Your task to perform on an android device: allow cookies in the chrome app Image 0: 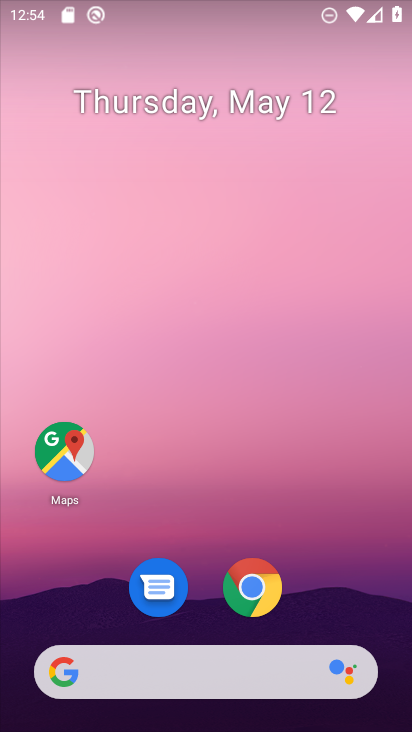
Step 0: click (252, 587)
Your task to perform on an android device: allow cookies in the chrome app Image 1: 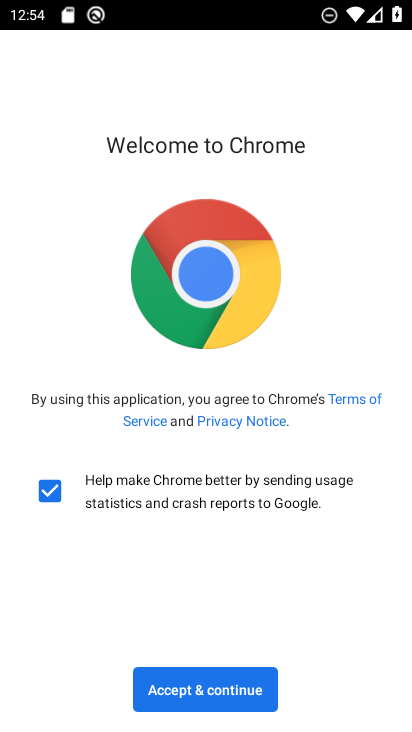
Step 1: click (223, 688)
Your task to perform on an android device: allow cookies in the chrome app Image 2: 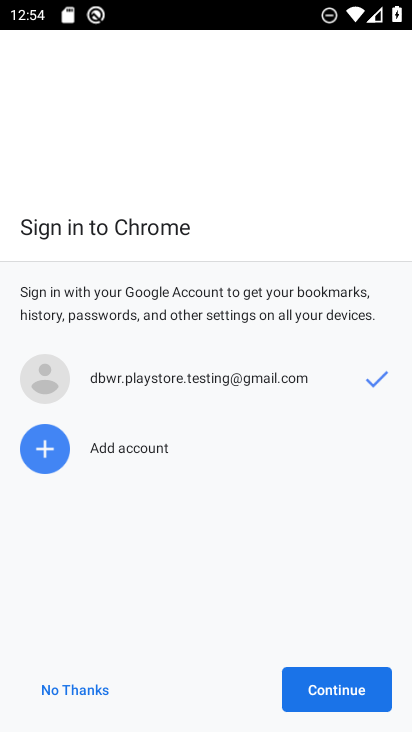
Step 2: click (334, 688)
Your task to perform on an android device: allow cookies in the chrome app Image 3: 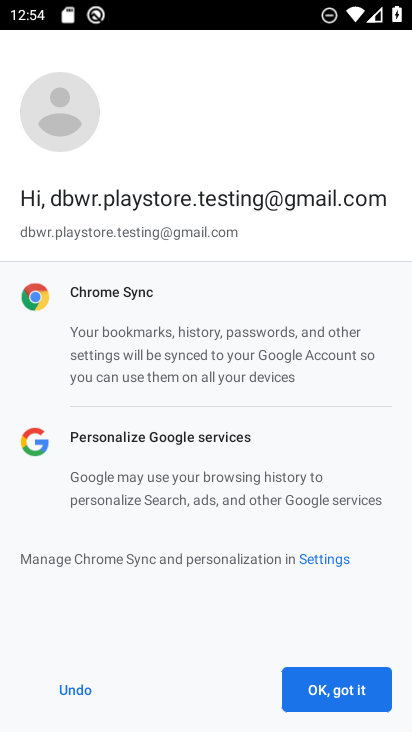
Step 3: click (334, 688)
Your task to perform on an android device: allow cookies in the chrome app Image 4: 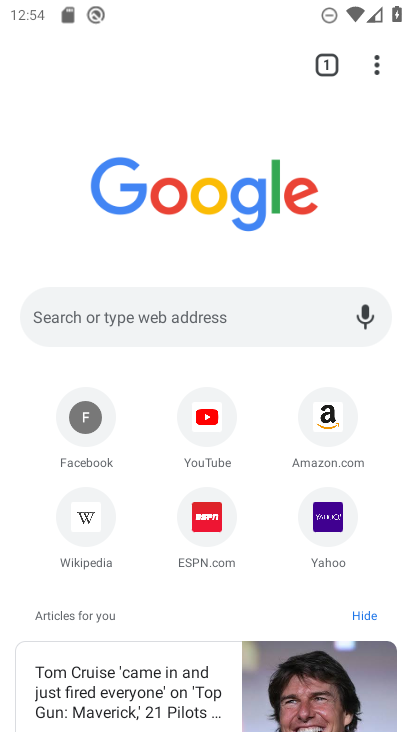
Step 4: click (378, 68)
Your task to perform on an android device: allow cookies in the chrome app Image 5: 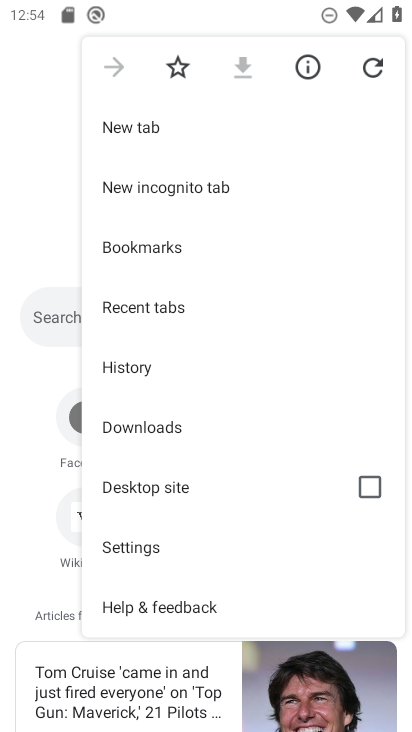
Step 5: click (150, 548)
Your task to perform on an android device: allow cookies in the chrome app Image 6: 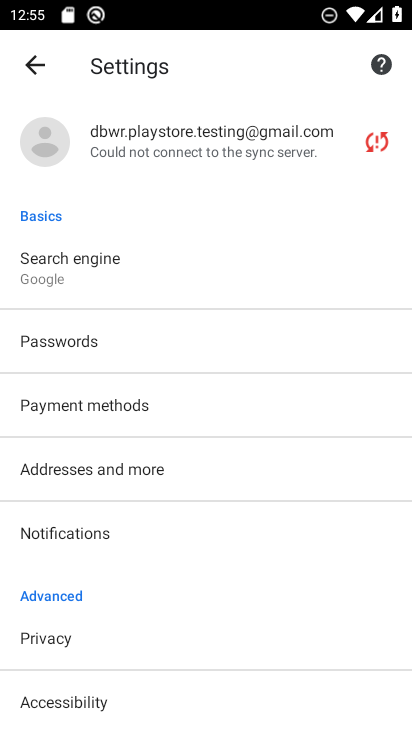
Step 6: drag from (103, 638) to (218, 459)
Your task to perform on an android device: allow cookies in the chrome app Image 7: 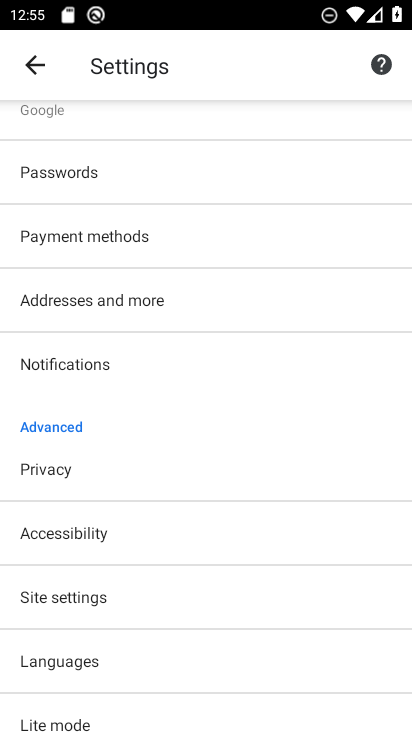
Step 7: click (83, 595)
Your task to perform on an android device: allow cookies in the chrome app Image 8: 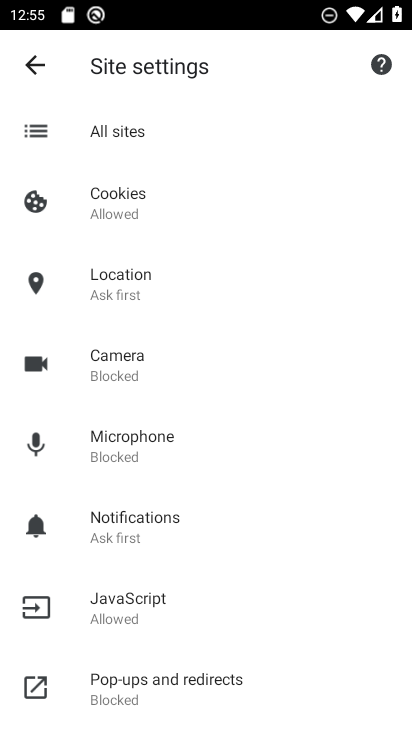
Step 8: click (123, 191)
Your task to perform on an android device: allow cookies in the chrome app Image 9: 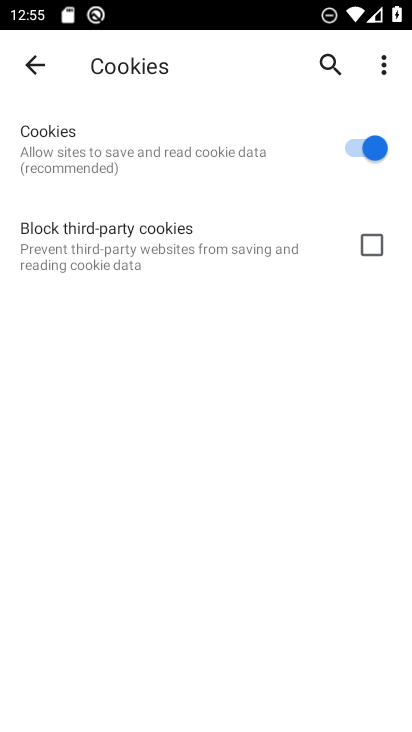
Step 9: click (372, 244)
Your task to perform on an android device: allow cookies in the chrome app Image 10: 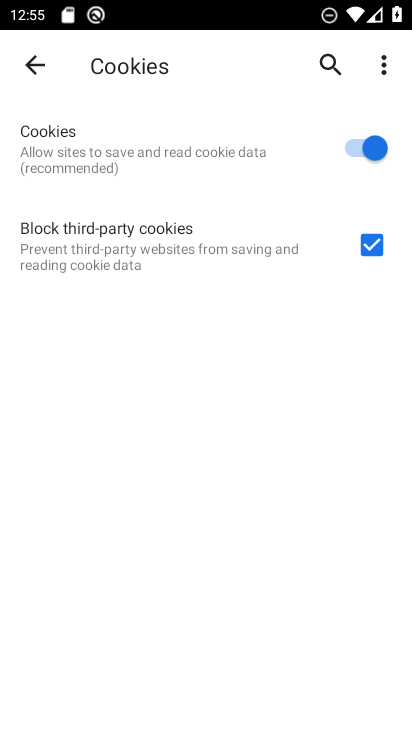
Step 10: task complete